Your task to perform on an android device: uninstall "Google Drive" Image 0: 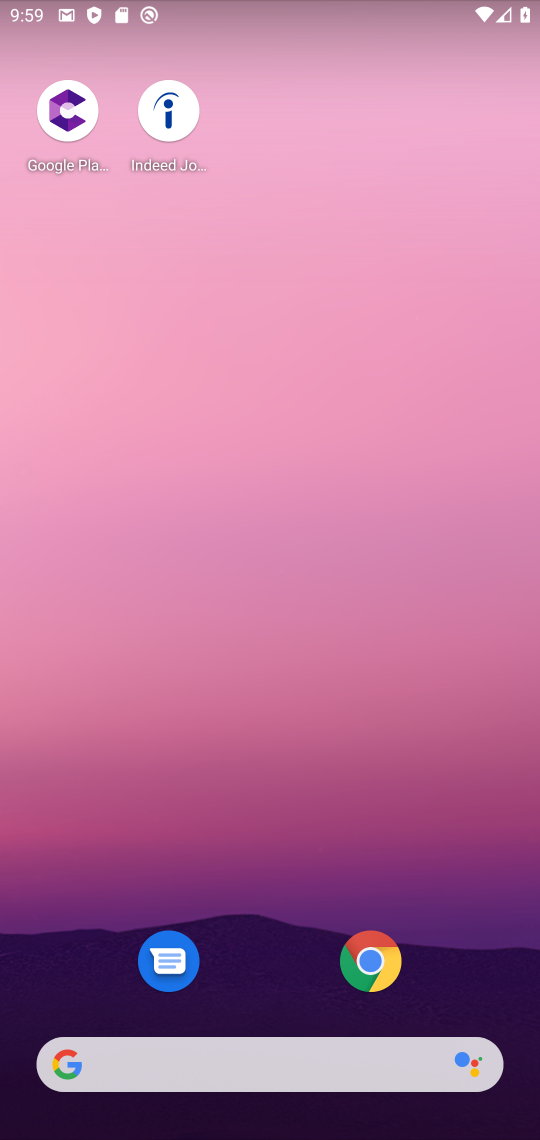
Step 0: drag from (278, 1042) to (391, 68)
Your task to perform on an android device: uninstall "Google Drive" Image 1: 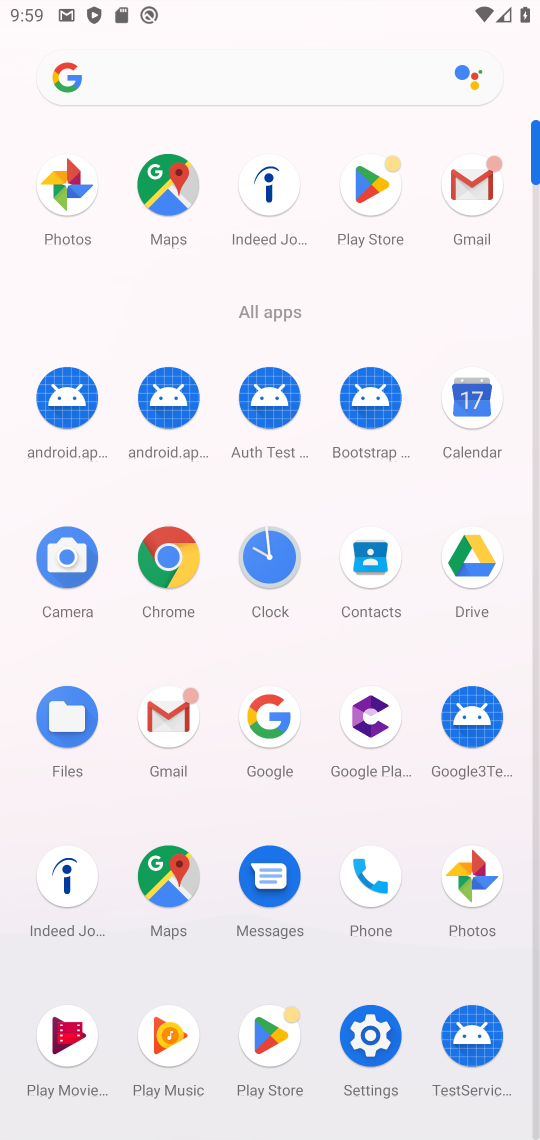
Step 1: click (270, 1045)
Your task to perform on an android device: uninstall "Google Drive" Image 2: 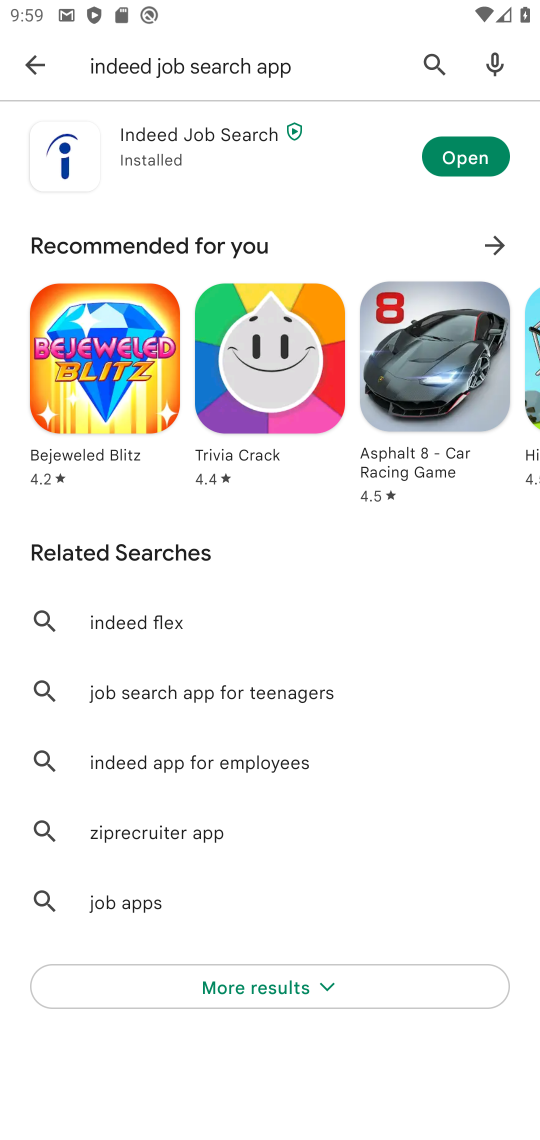
Step 2: click (430, 66)
Your task to perform on an android device: uninstall "Google Drive" Image 3: 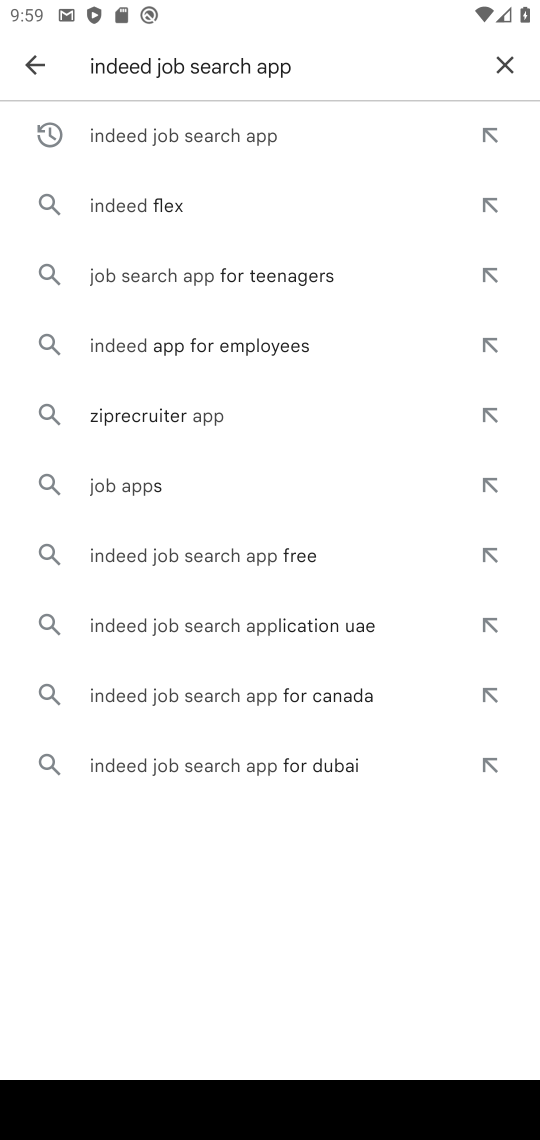
Step 3: click (506, 62)
Your task to perform on an android device: uninstall "Google Drive" Image 4: 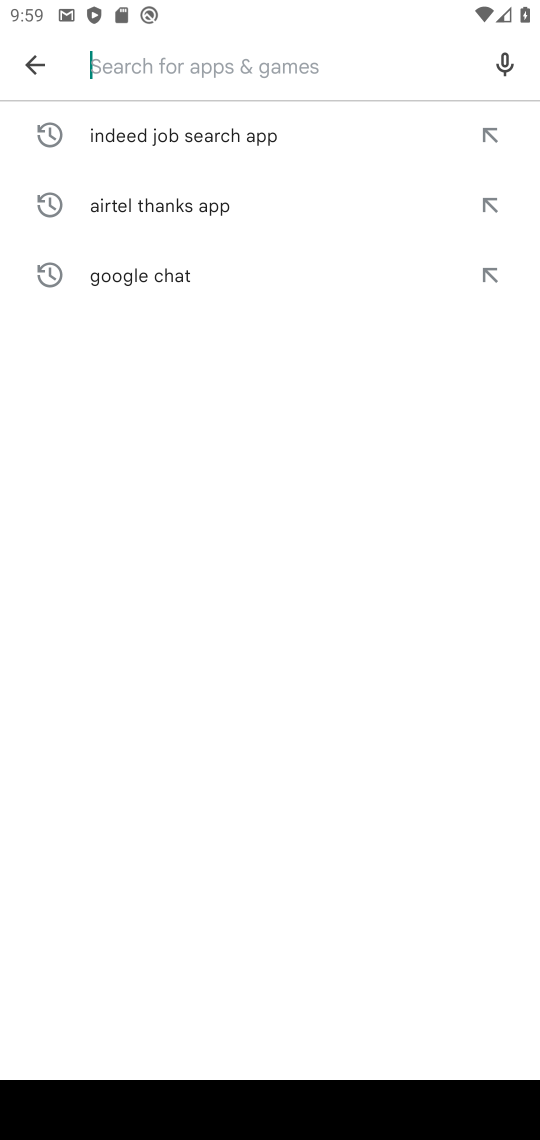
Step 4: type "google drive"
Your task to perform on an android device: uninstall "Google Drive" Image 5: 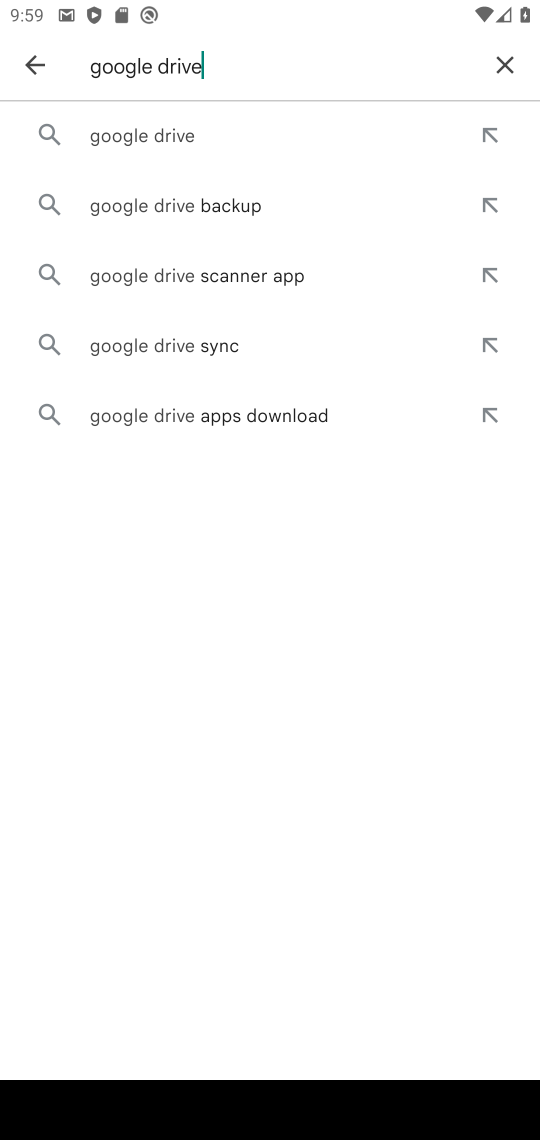
Step 5: click (289, 137)
Your task to perform on an android device: uninstall "Google Drive" Image 6: 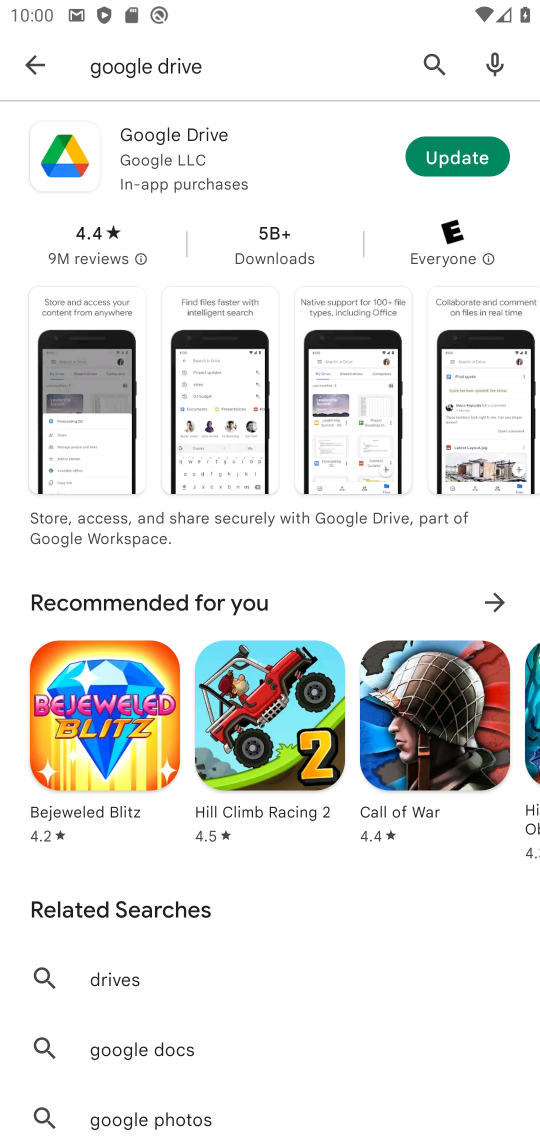
Step 6: click (84, 167)
Your task to perform on an android device: uninstall "Google Drive" Image 7: 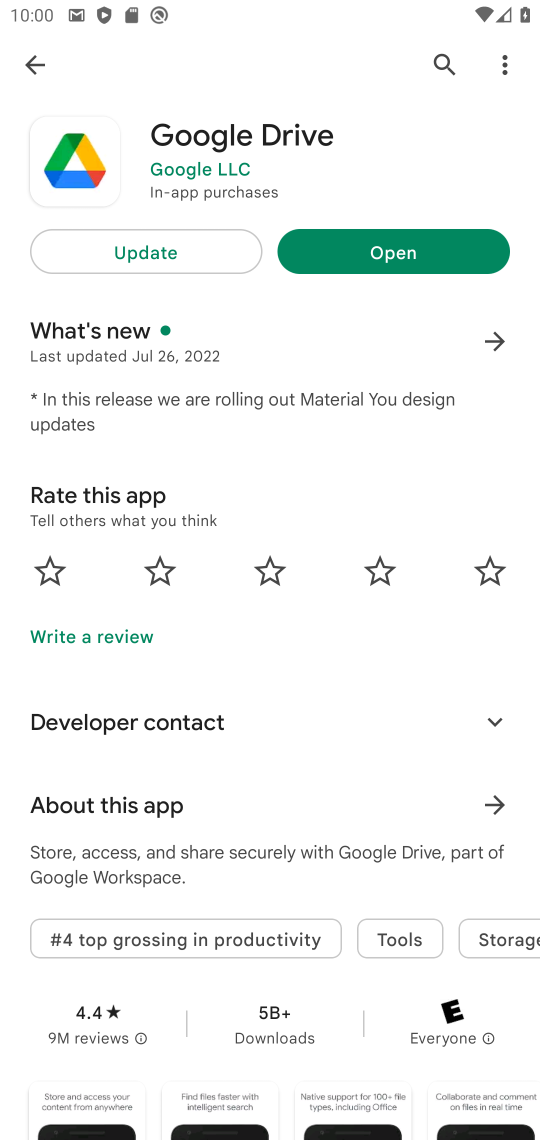
Step 7: task complete